Your task to perform on an android device: turn pop-ups off in chrome Image 0: 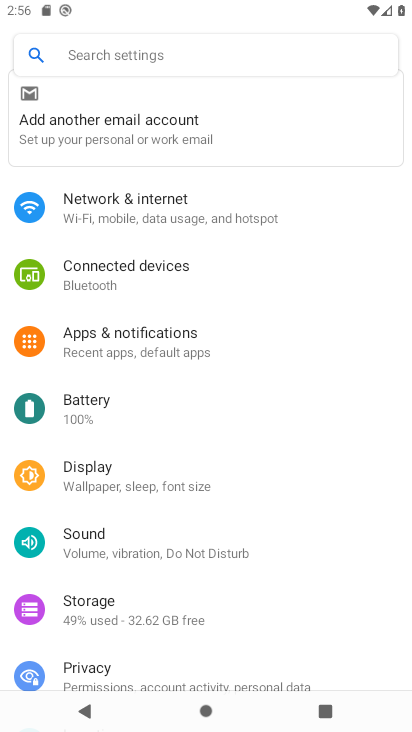
Step 0: press home button
Your task to perform on an android device: turn pop-ups off in chrome Image 1: 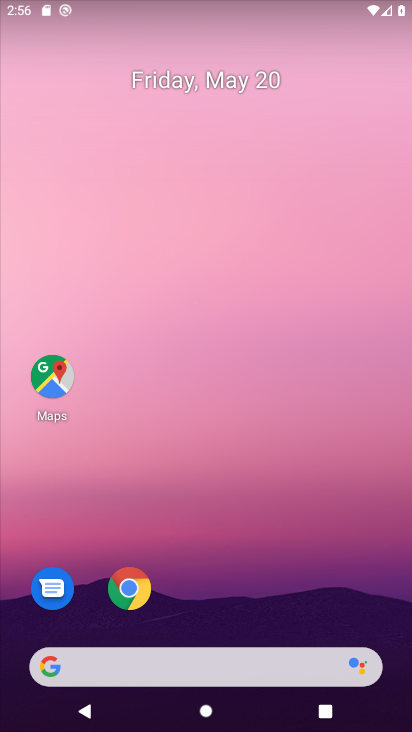
Step 1: click (134, 591)
Your task to perform on an android device: turn pop-ups off in chrome Image 2: 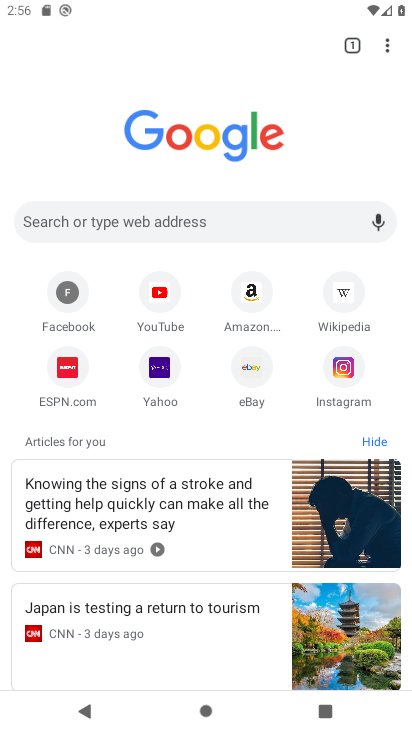
Step 2: drag from (384, 44) to (264, 383)
Your task to perform on an android device: turn pop-ups off in chrome Image 3: 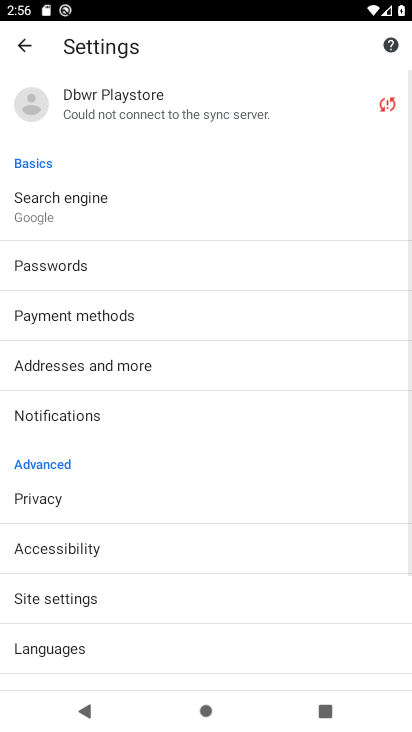
Step 3: drag from (204, 586) to (229, 215)
Your task to perform on an android device: turn pop-ups off in chrome Image 4: 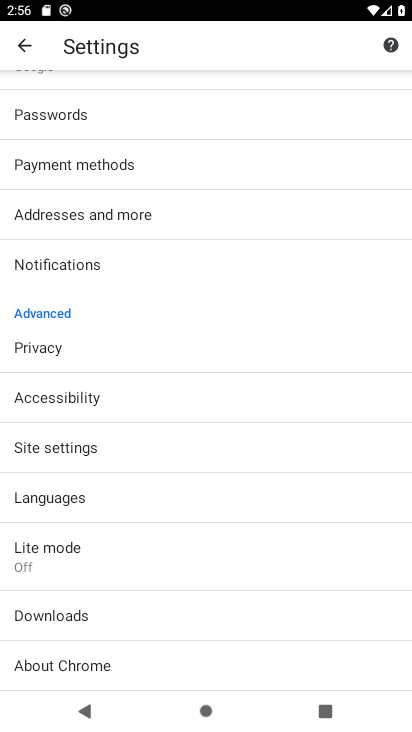
Step 4: drag from (100, 580) to (217, 169)
Your task to perform on an android device: turn pop-ups off in chrome Image 5: 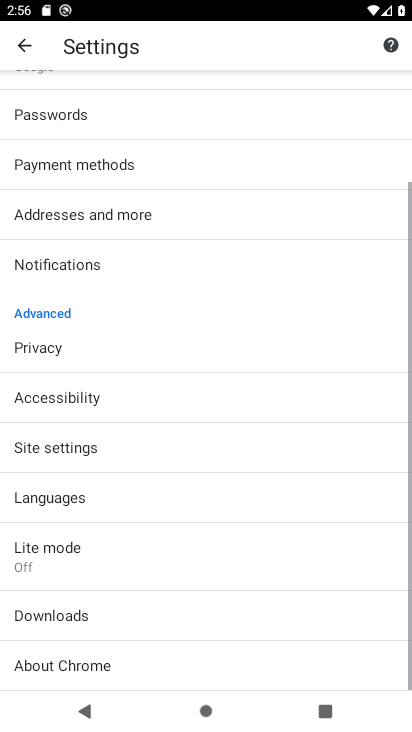
Step 5: click (64, 443)
Your task to perform on an android device: turn pop-ups off in chrome Image 6: 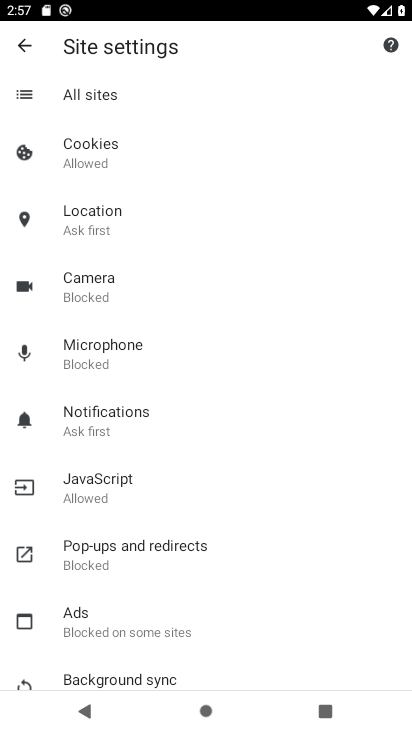
Step 6: click (143, 541)
Your task to perform on an android device: turn pop-ups off in chrome Image 7: 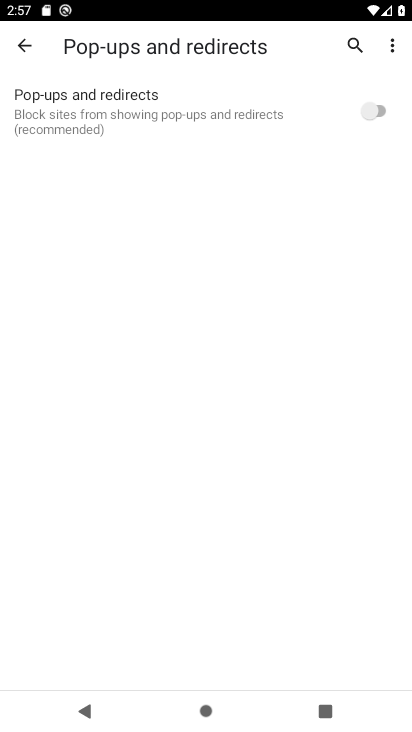
Step 7: task complete